Your task to perform on an android device: Search for pizza restaurants on Maps Image 0: 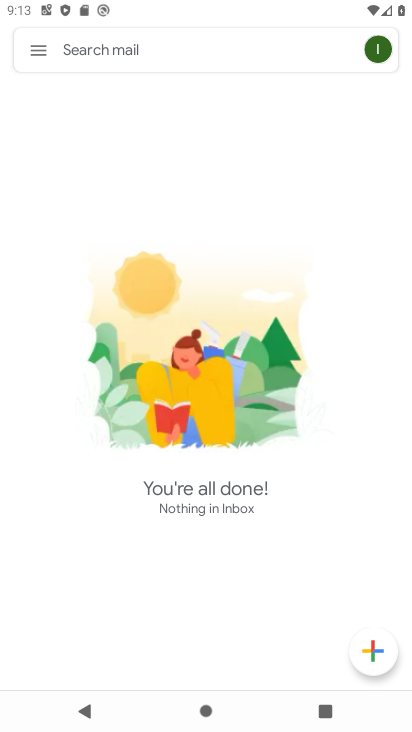
Step 0: press home button
Your task to perform on an android device: Search for pizza restaurants on Maps Image 1: 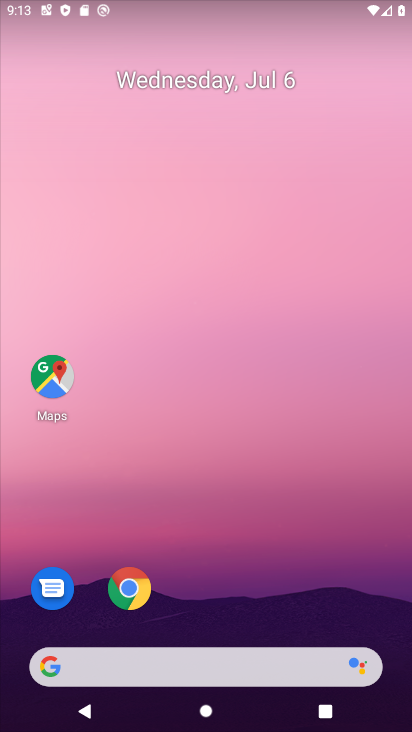
Step 1: click (46, 386)
Your task to perform on an android device: Search for pizza restaurants on Maps Image 2: 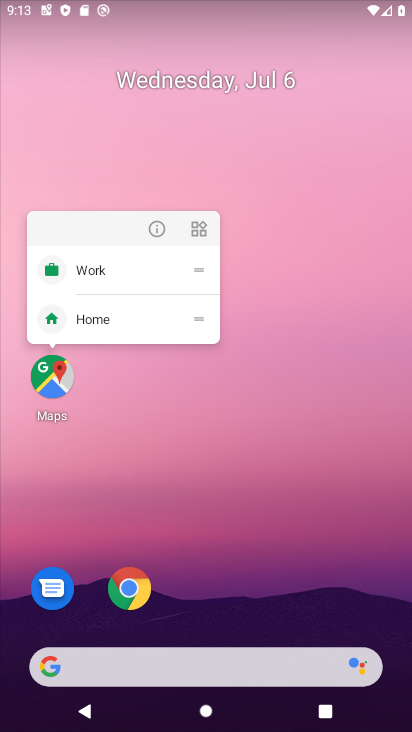
Step 2: click (56, 386)
Your task to perform on an android device: Search for pizza restaurants on Maps Image 3: 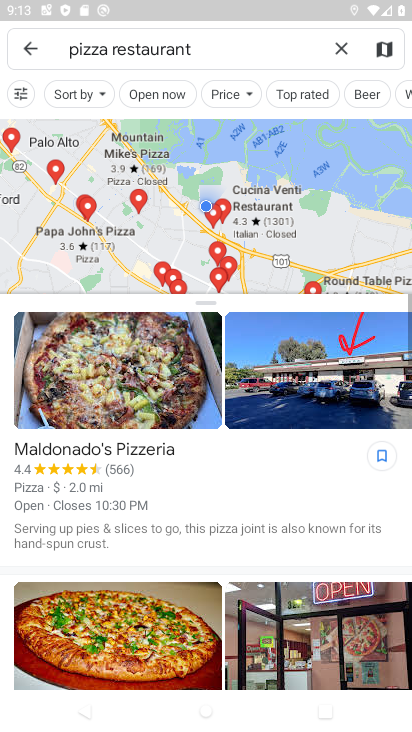
Step 3: task complete